Your task to perform on an android device: delete a single message in the gmail app Image 0: 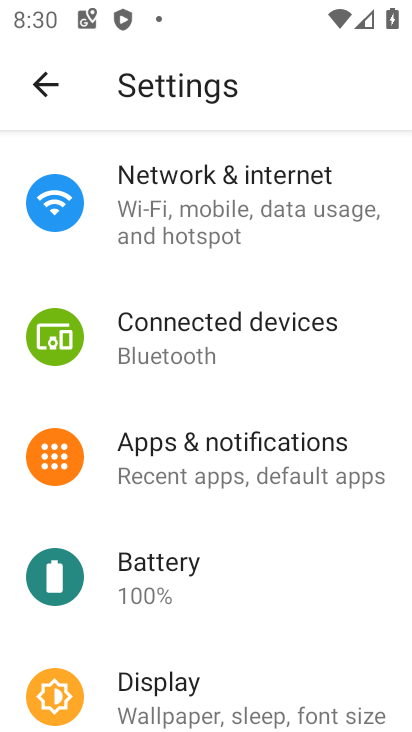
Step 0: press home button
Your task to perform on an android device: delete a single message in the gmail app Image 1: 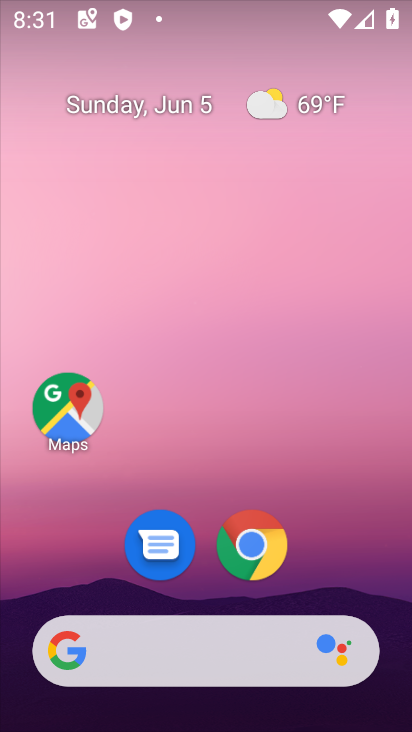
Step 1: drag from (376, 569) to (374, 228)
Your task to perform on an android device: delete a single message in the gmail app Image 2: 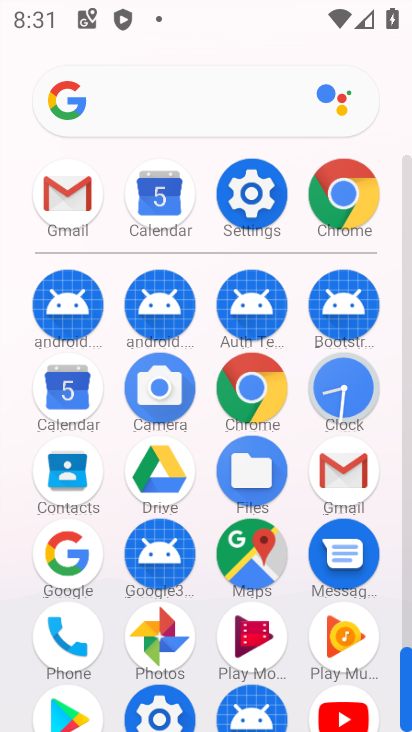
Step 2: click (353, 474)
Your task to perform on an android device: delete a single message in the gmail app Image 3: 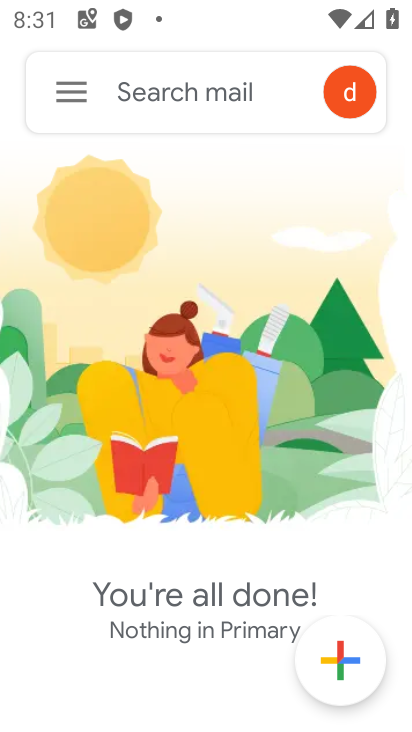
Step 3: task complete